Your task to perform on an android device: Search for "rayovac triple a" on ebay.com, select the first entry, and add it to the cart. Image 0: 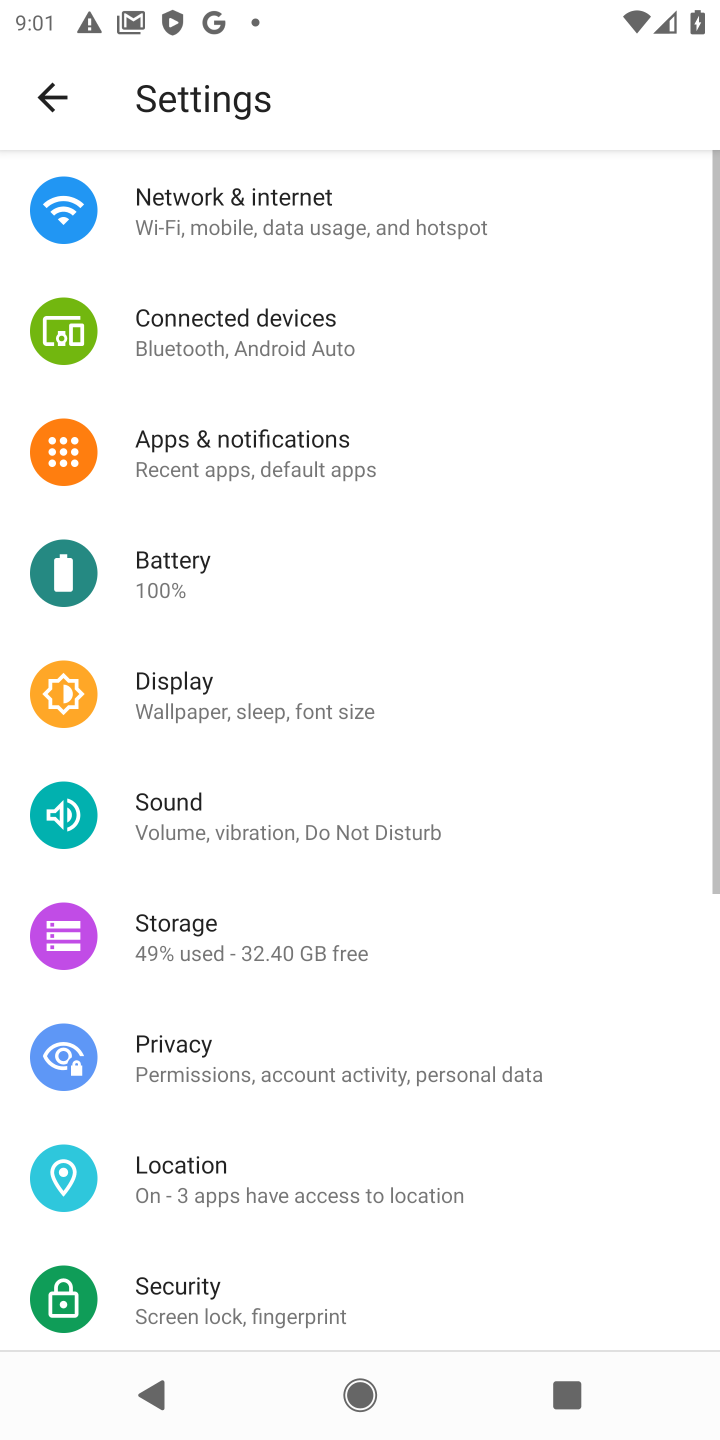
Step 0: press home button
Your task to perform on an android device: Search for "rayovac triple a" on ebay.com, select the first entry, and add it to the cart. Image 1: 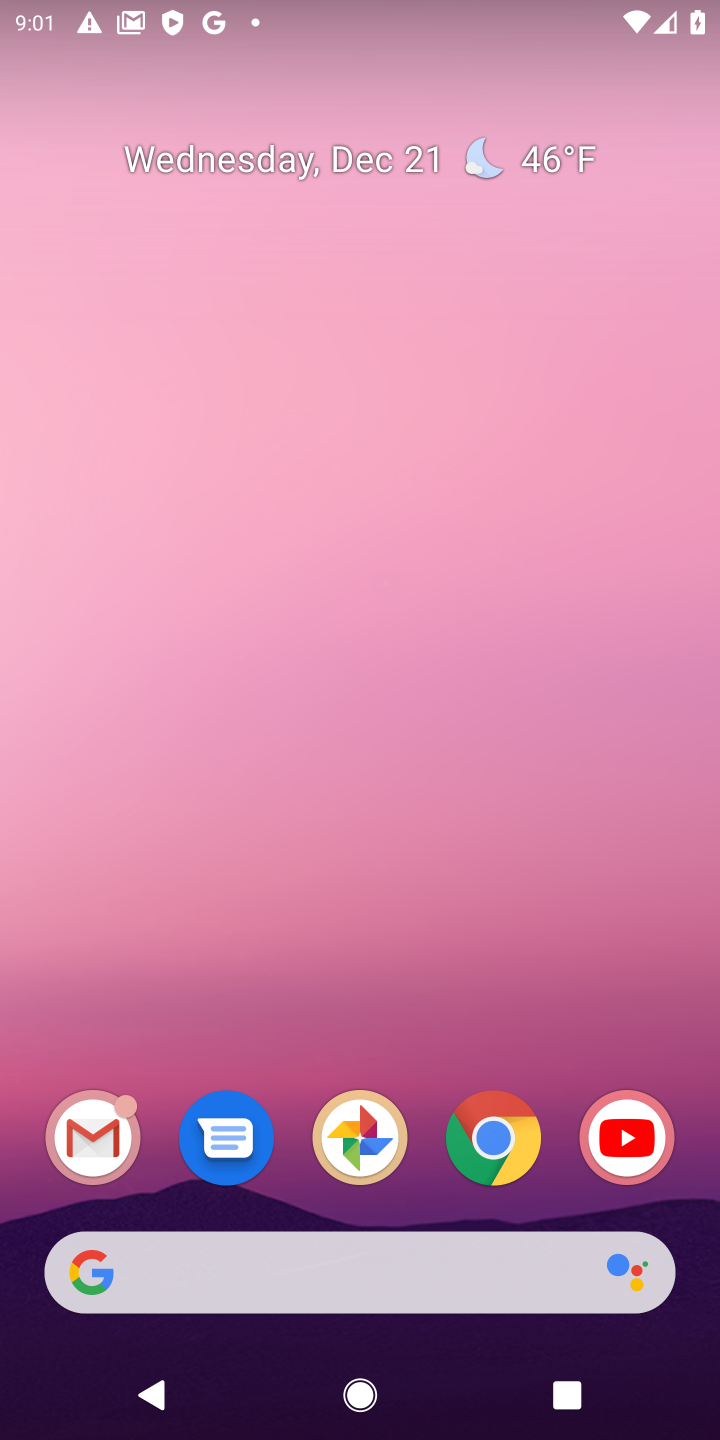
Step 1: click (492, 1151)
Your task to perform on an android device: Search for "rayovac triple a" on ebay.com, select the first entry, and add it to the cart. Image 2: 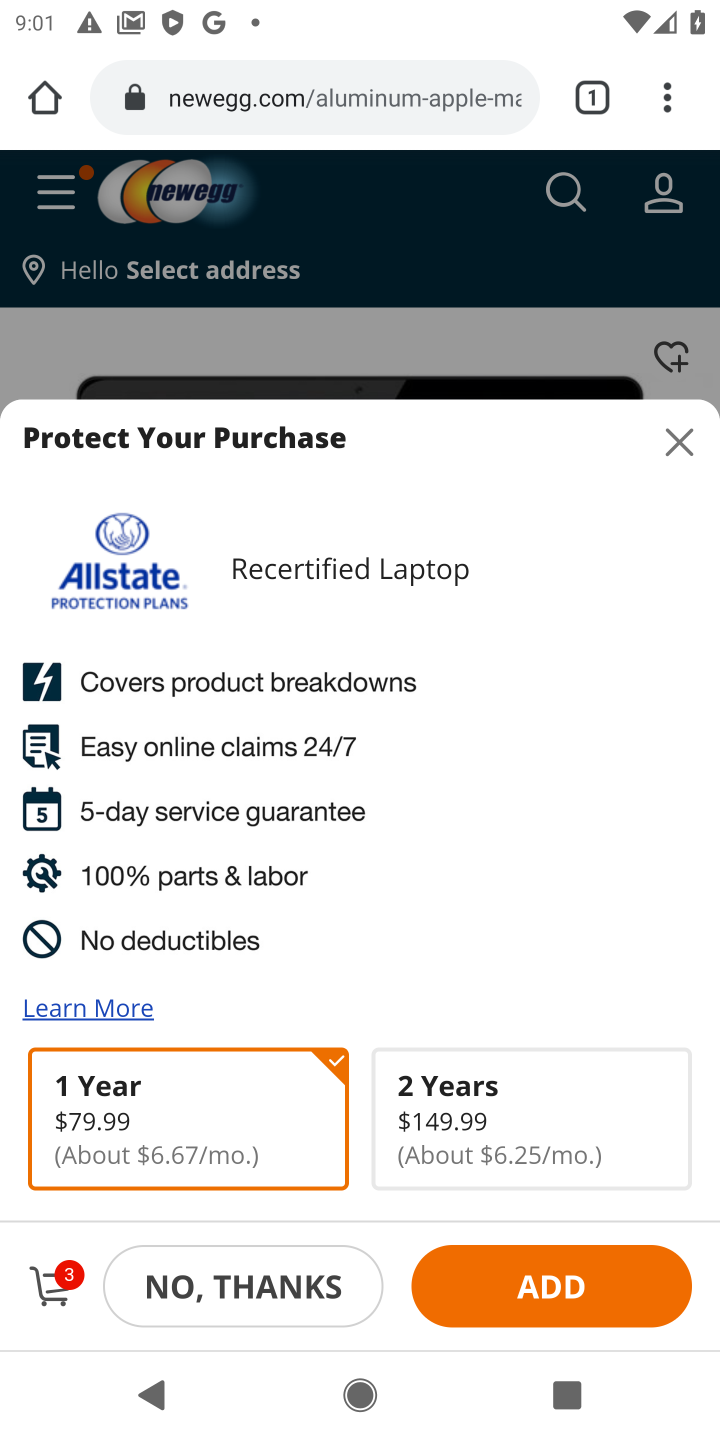
Step 2: click (251, 103)
Your task to perform on an android device: Search for "rayovac triple a" on ebay.com, select the first entry, and add it to the cart. Image 3: 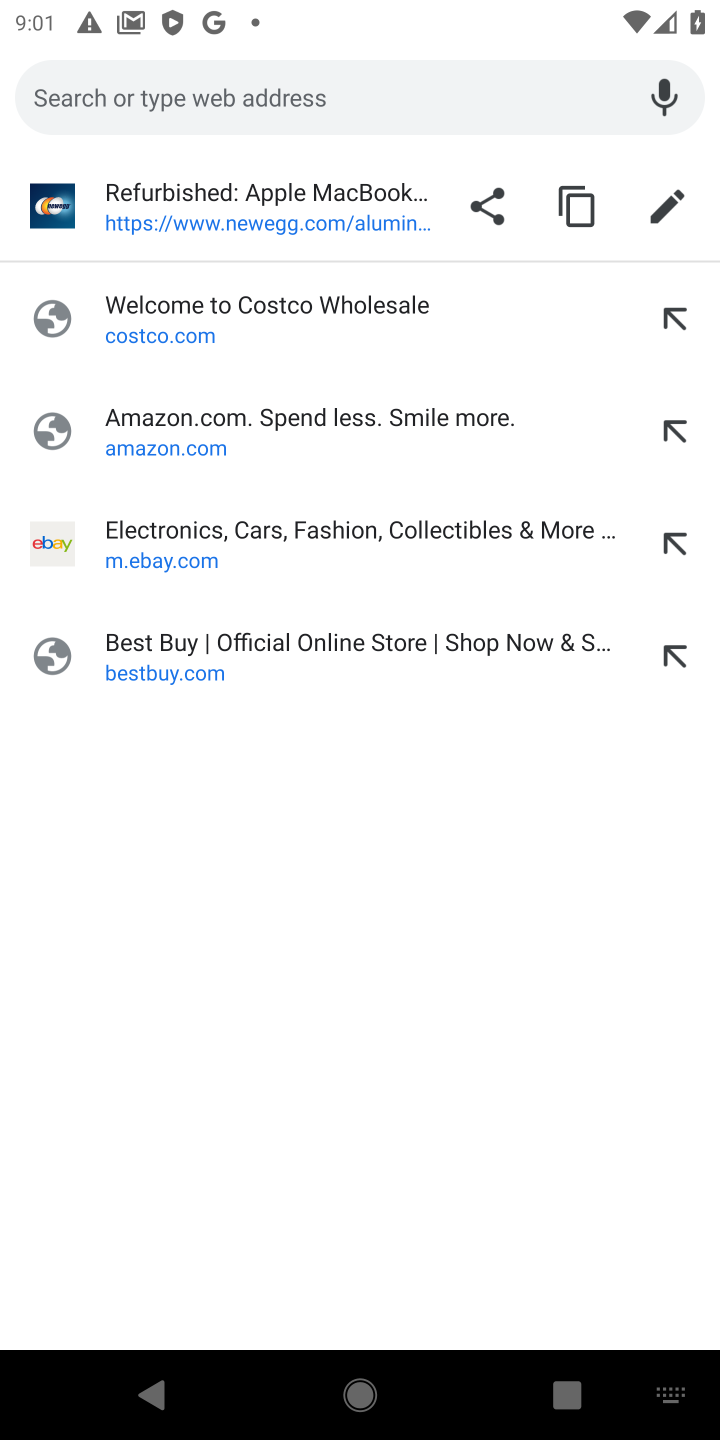
Step 3: click (130, 559)
Your task to perform on an android device: Search for "rayovac triple a" on ebay.com, select the first entry, and add it to the cart. Image 4: 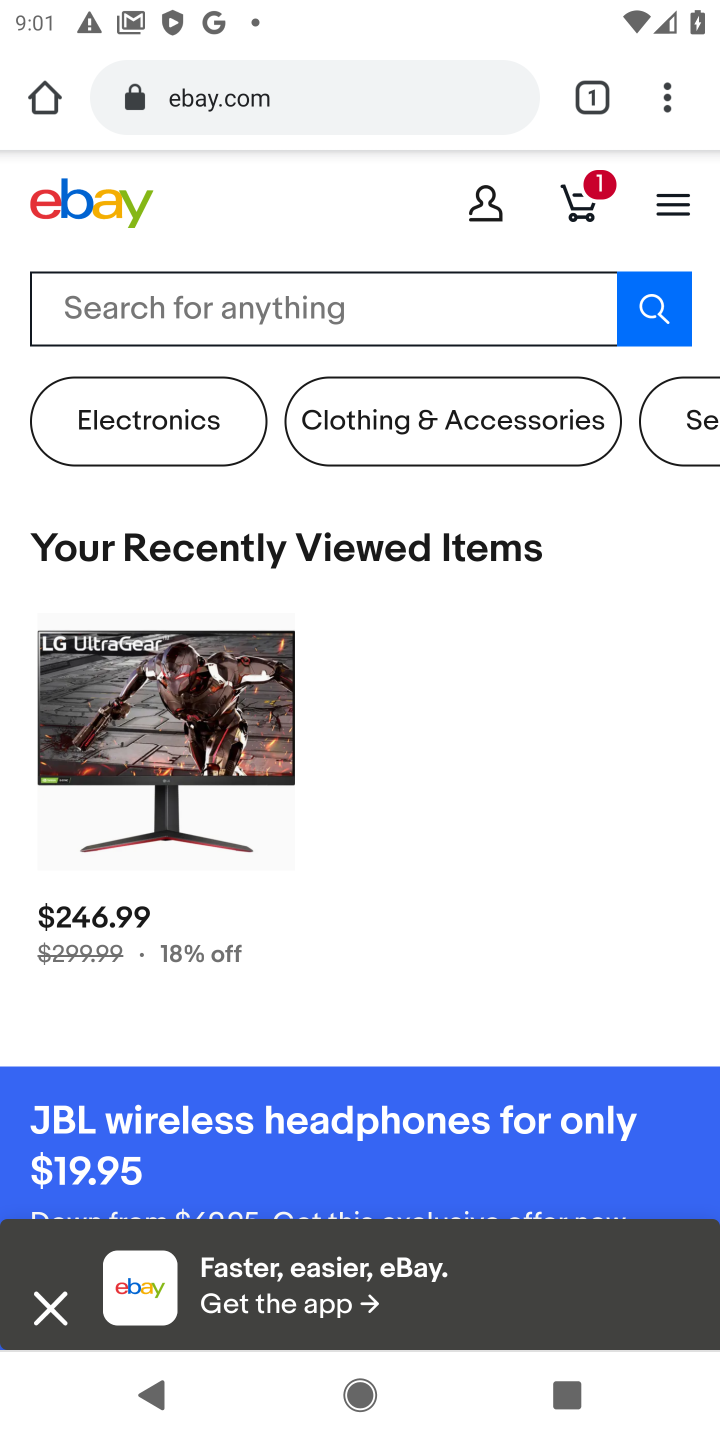
Step 4: click (128, 308)
Your task to perform on an android device: Search for "rayovac triple a" on ebay.com, select the first entry, and add it to the cart. Image 5: 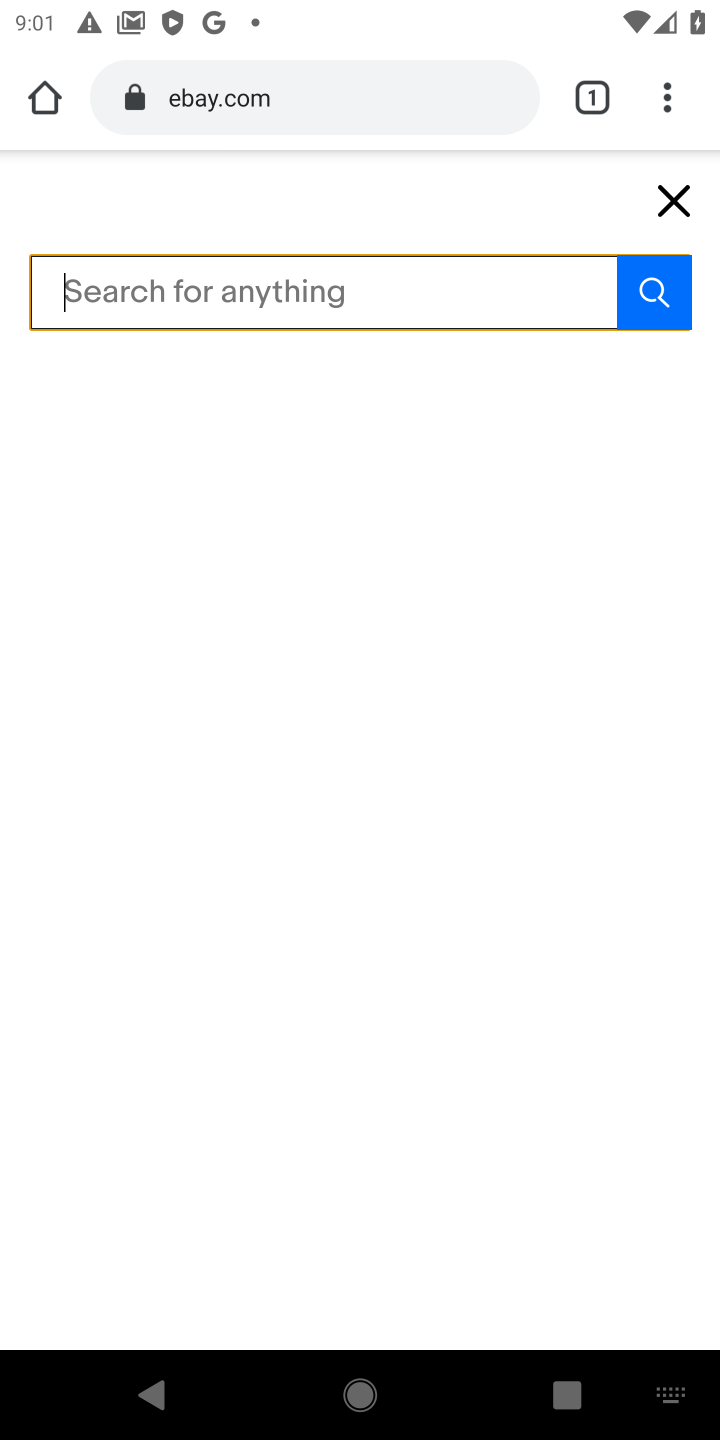
Step 5: type "rayovac triple a"
Your task to perform on an android device: Search for "rayovac triple a" on ebay.com, select the first entry, and add it to the cart. Image 6: 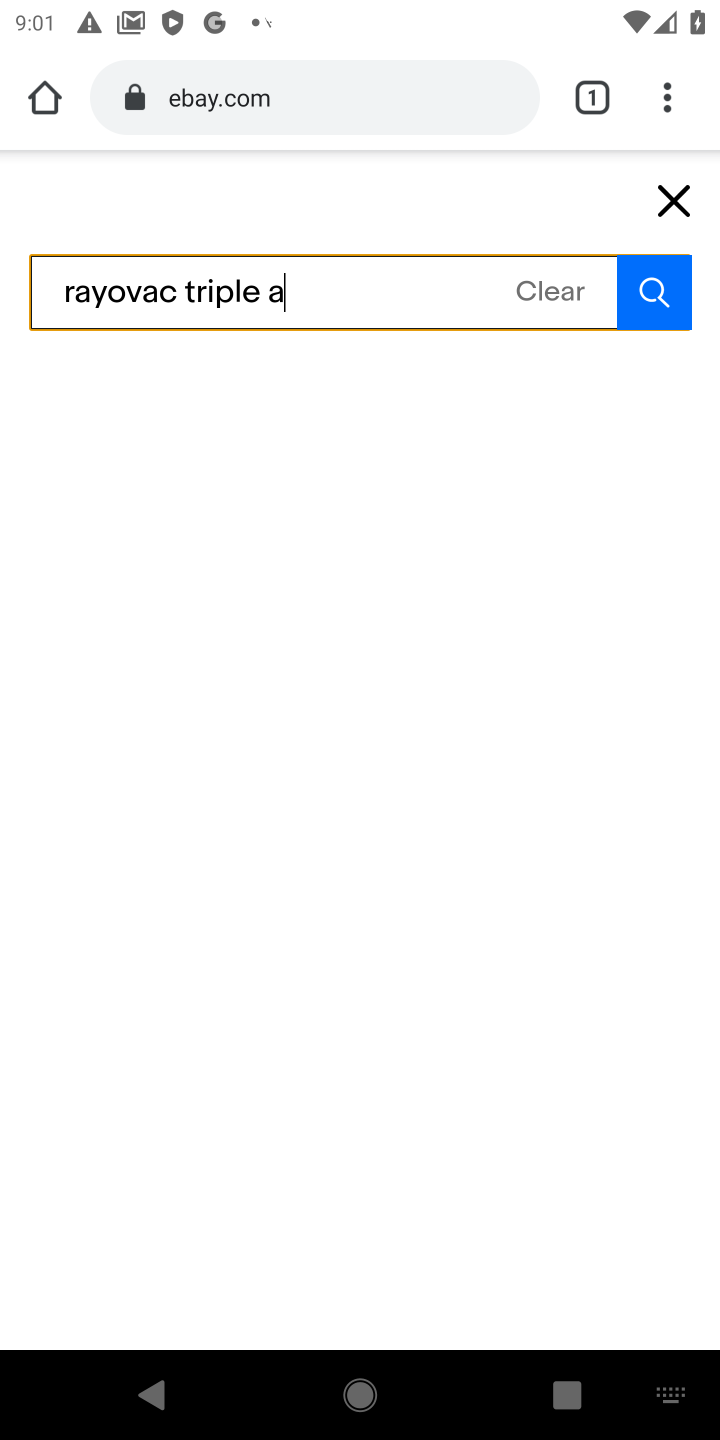
Step 6: click (661, 297)
Your task to perform on an android device: Search for "rayovac triple a" on ebay.com, select the first entry, and add it to the cart. Image 7: 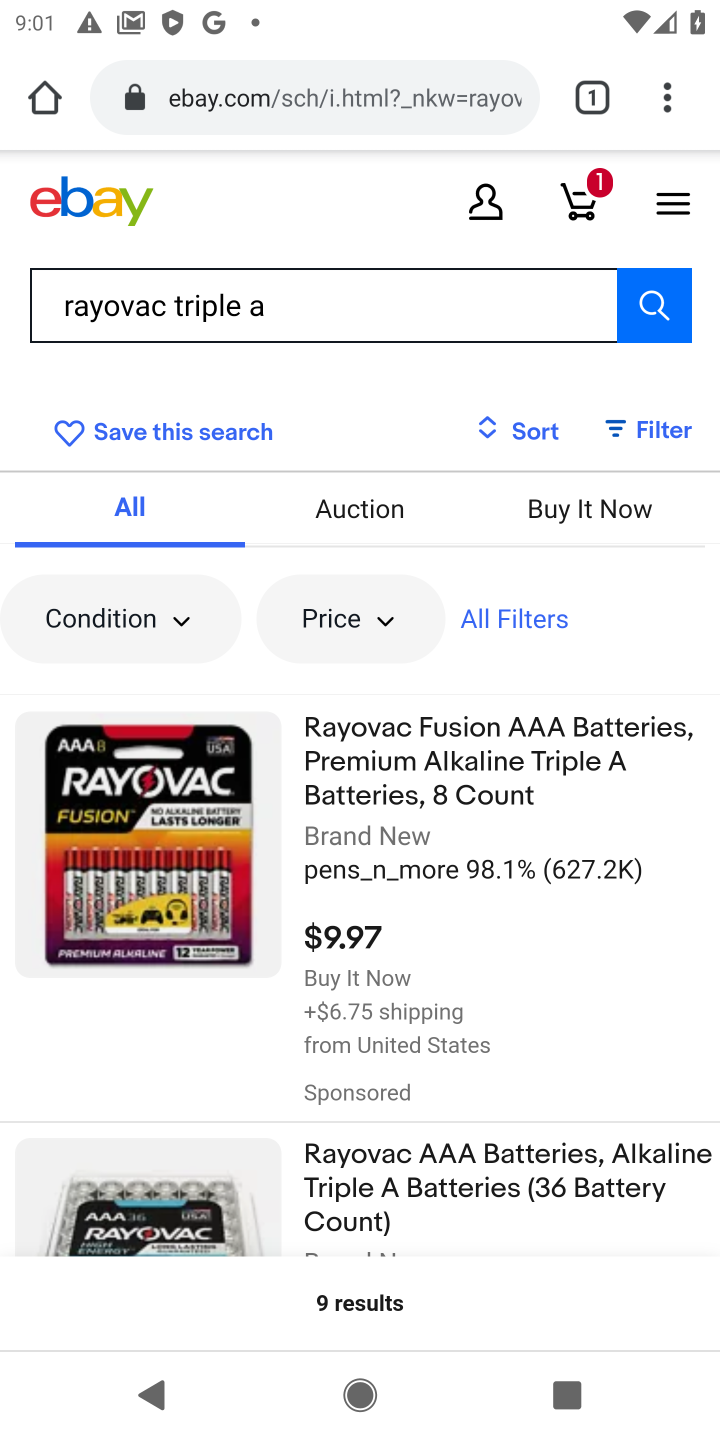
Step 7: click (346, 793)
Your task to perform on an android device: Search for "rayovac triple a" on ebay.com, select the first entry, and add it to the cart. Image 8: 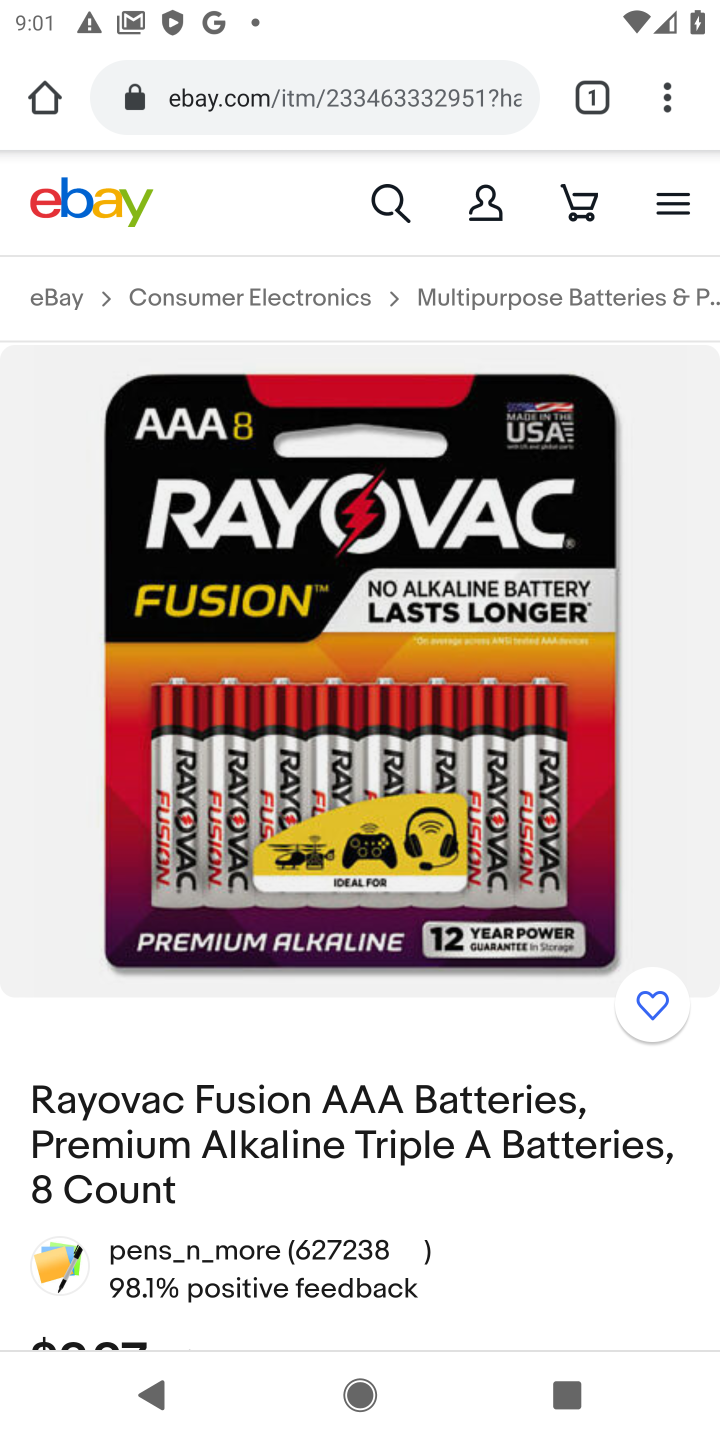
Step 8: drag from (308, 1092) to (319, 531)
Your task to perform on an android device: Search for "rayovac triple a" on ebay.com, select the first entry, and add it to the cart. Image 9: 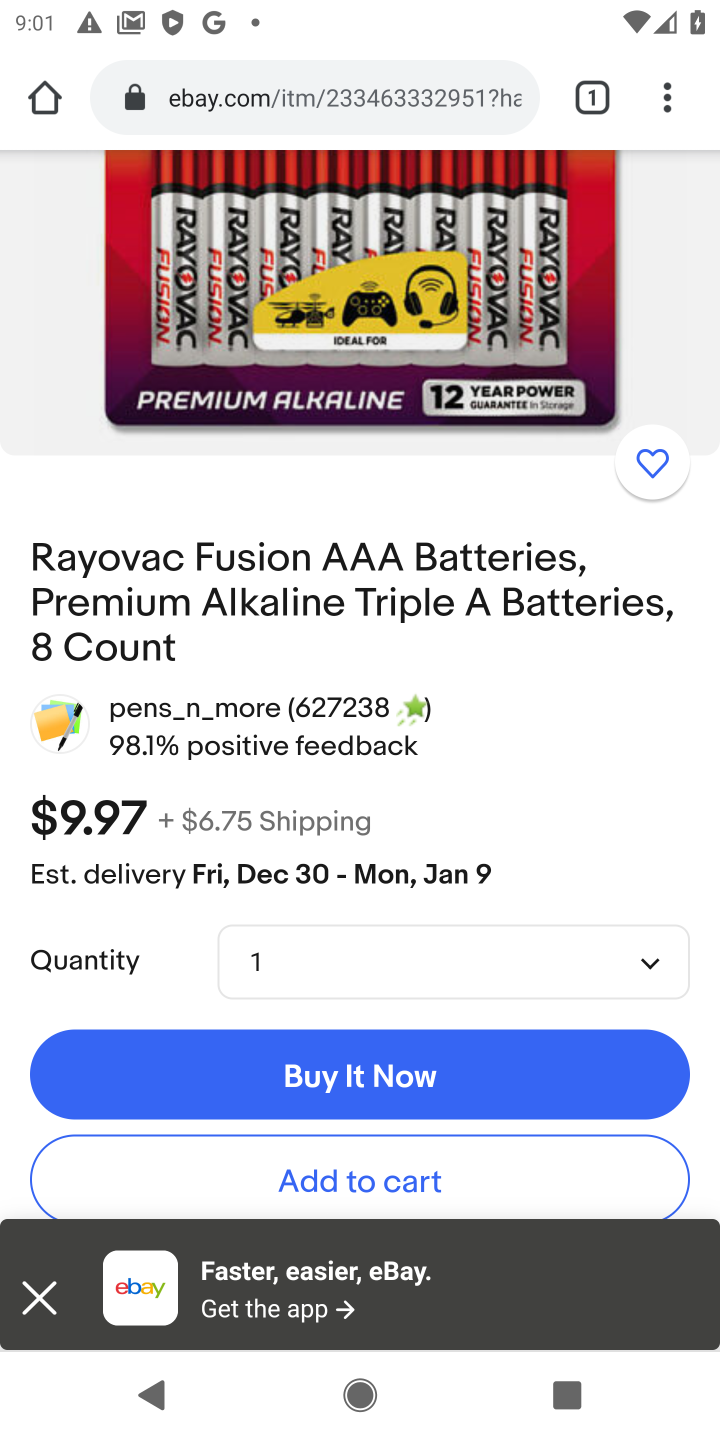
Step 9: click (320, 1167)
Your task to perform on an android device: Search for "rayovac triple a" on ebay.com, select the first entry, and add it to the cart. Image 10: 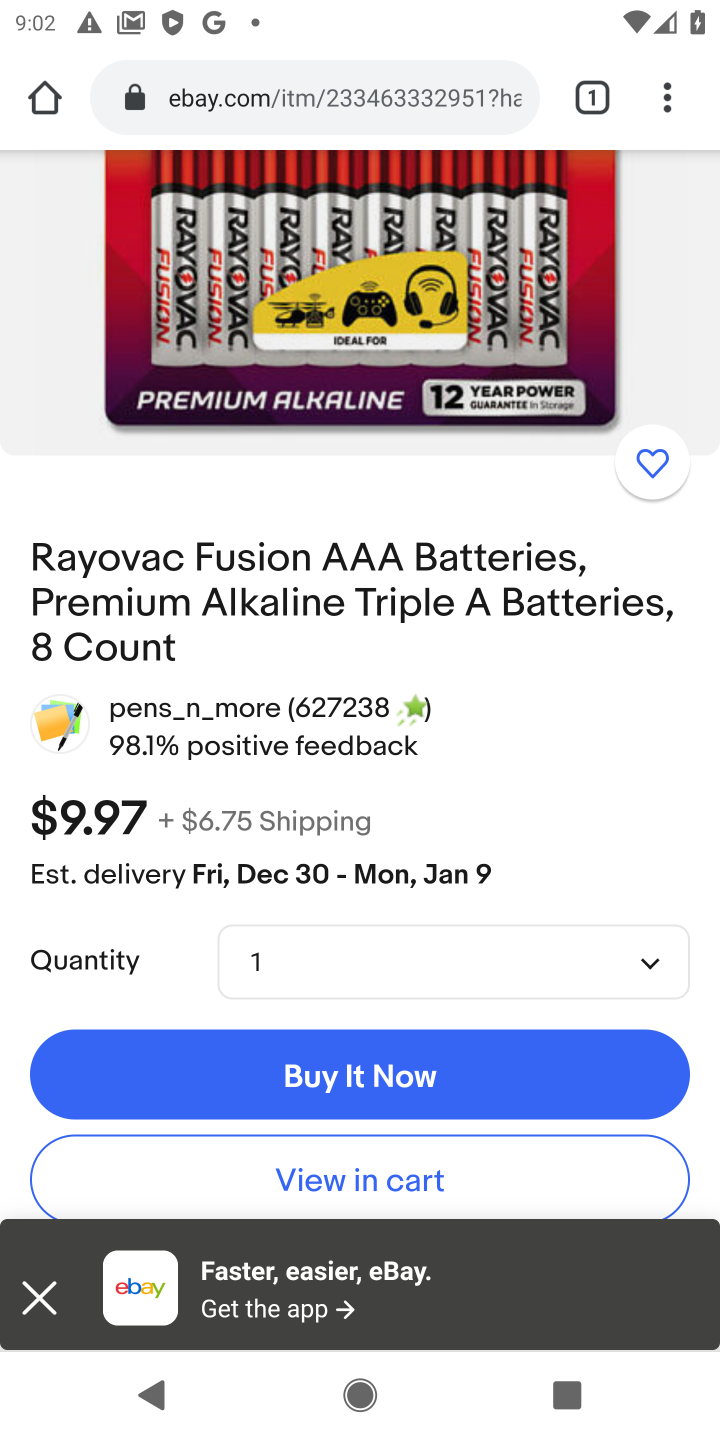
Step 10: task complete